Your task to perform on an android device: Go to calendar. Show me events next week Image 0: 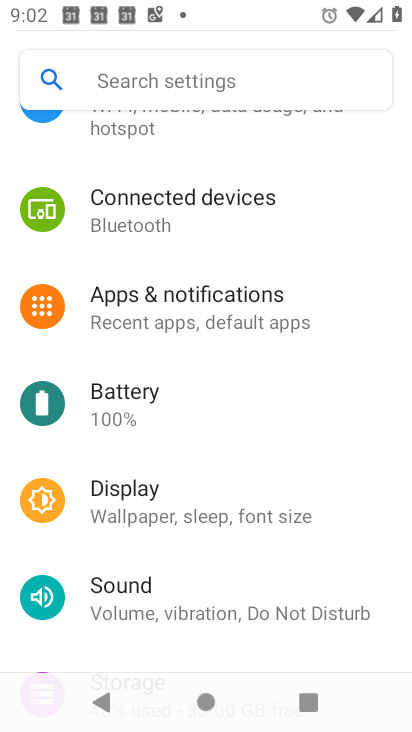
Step 0: press home button
Your task to perform on an android device: Go to calendar. Show me events next week Image 1: 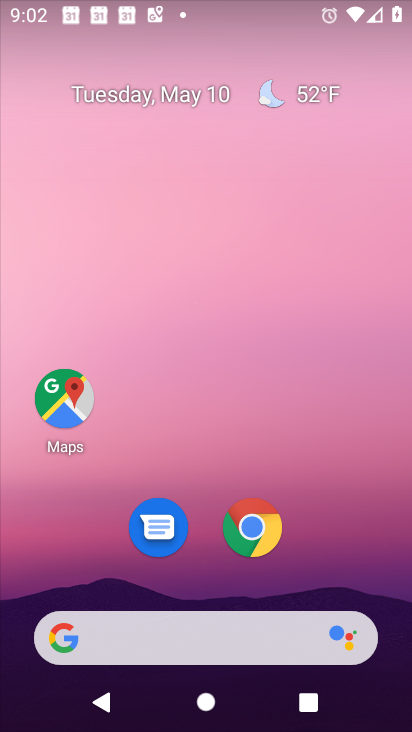
Step 1: drag from (310, 477) to (74, 127)
Your task to perform on an android device: Go to calendar. Show me events next week Image 2: 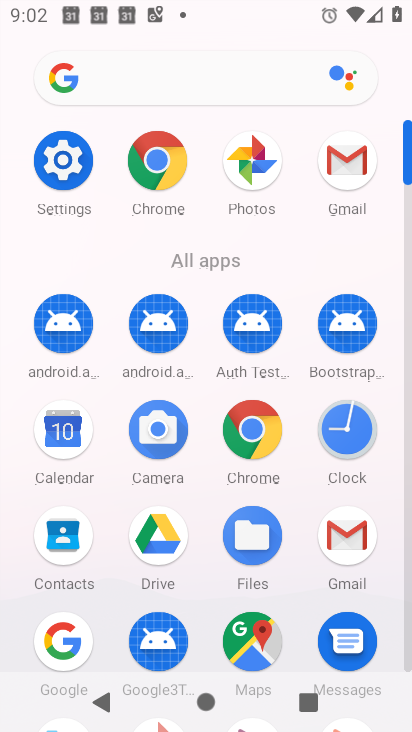
Step 2: click (67, 434)
Your task to perform on an android device: Go to calendar. Show me events next week Image 3: 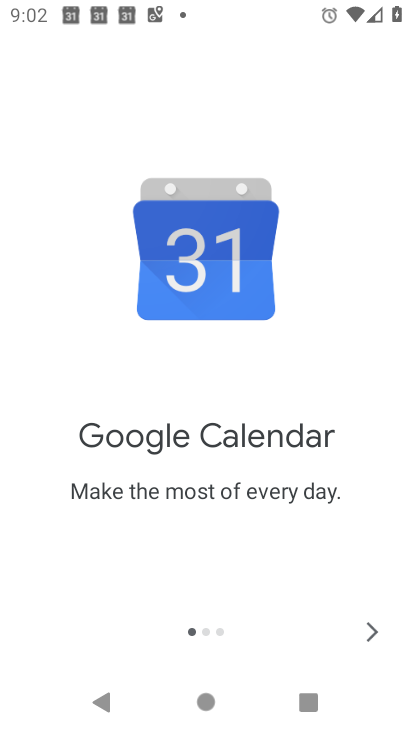
Step 3: click (363, 621)
Your task to perform on an android device: Go to calendar. Show me events next week Image 4: 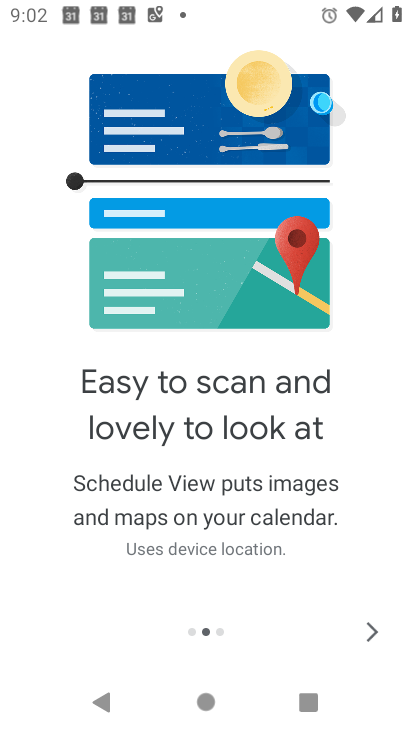
Step 4: click (363, 621)
Your task to perform on an android device: Go to calendar. Show me events next week Image 5: 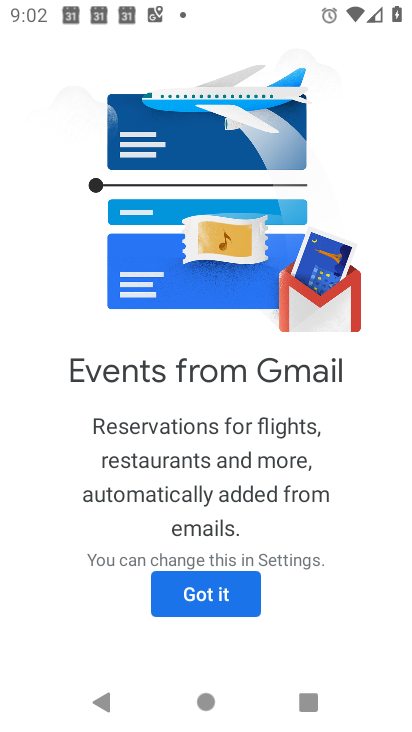
Step 5: click (189, 575)
Your task to perform on an android device: Go to calendar. Show me events next week Image 6: 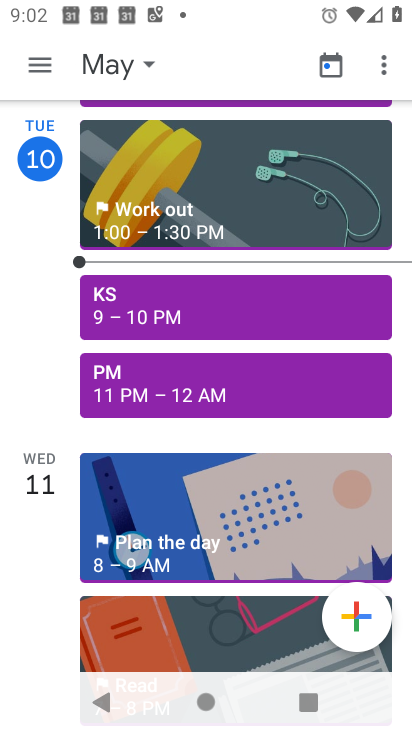
Step 6: click (43, 64)
Your task to perform on an android device: Go to calendar. Show me events next week Image 7: 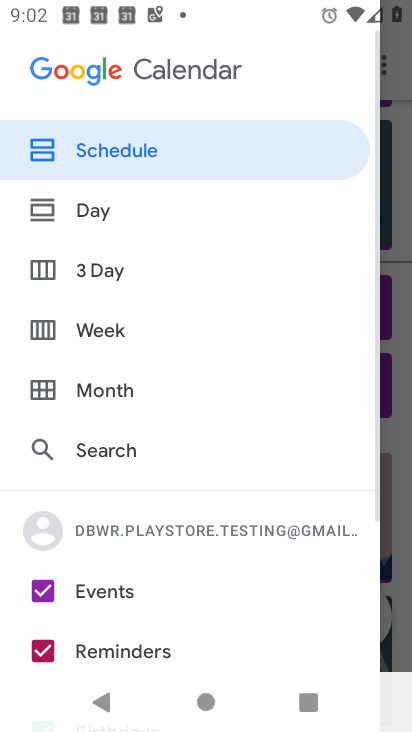
Step 7: click (102, 331)
Your task to perform on an android device: Go to calendar. Show me events next week Image 8: 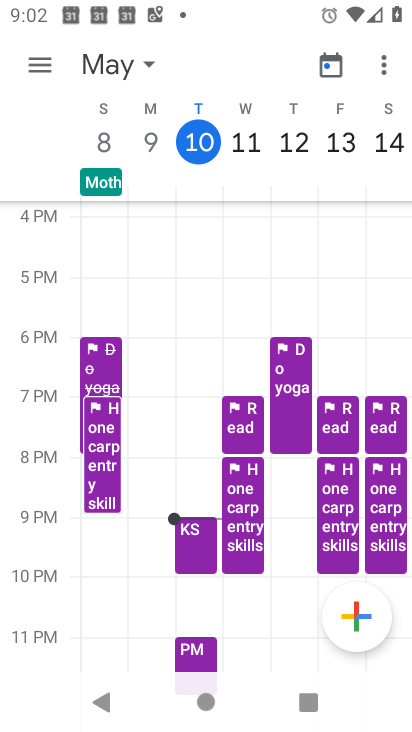
Step 8: drag from (280, 266) to (291, 621)
Your task to perform on an android device: Go to calendar. Show me events next week Image 9: 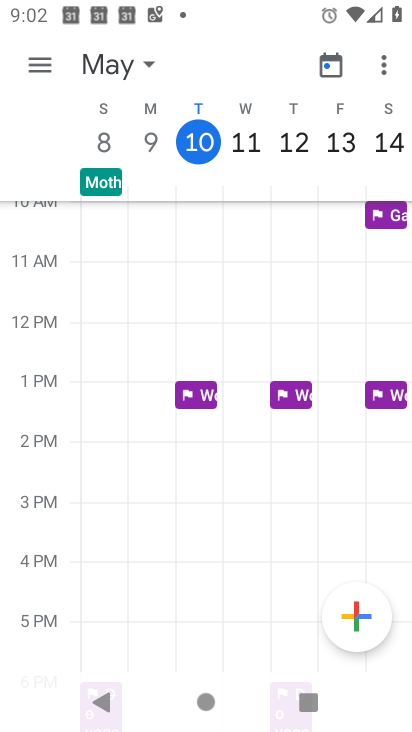
Step 9: click (209, 136)
Your task to perform on an android device: Go to calendar. Show me events next week Image 10: 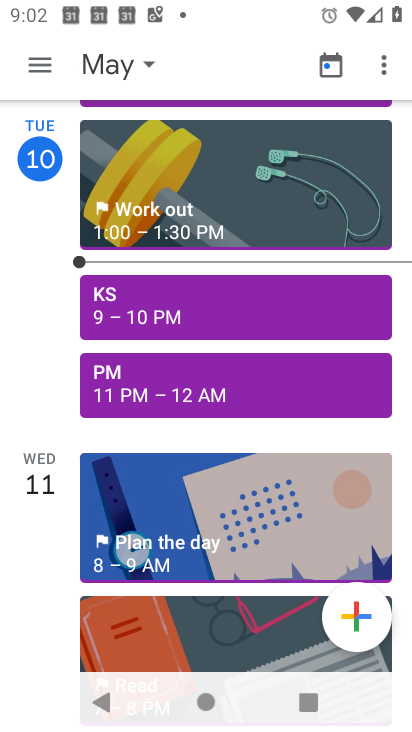
Step 10: task complete